Your task to perform on an android device: turn off translation in the chrome app Image 0: 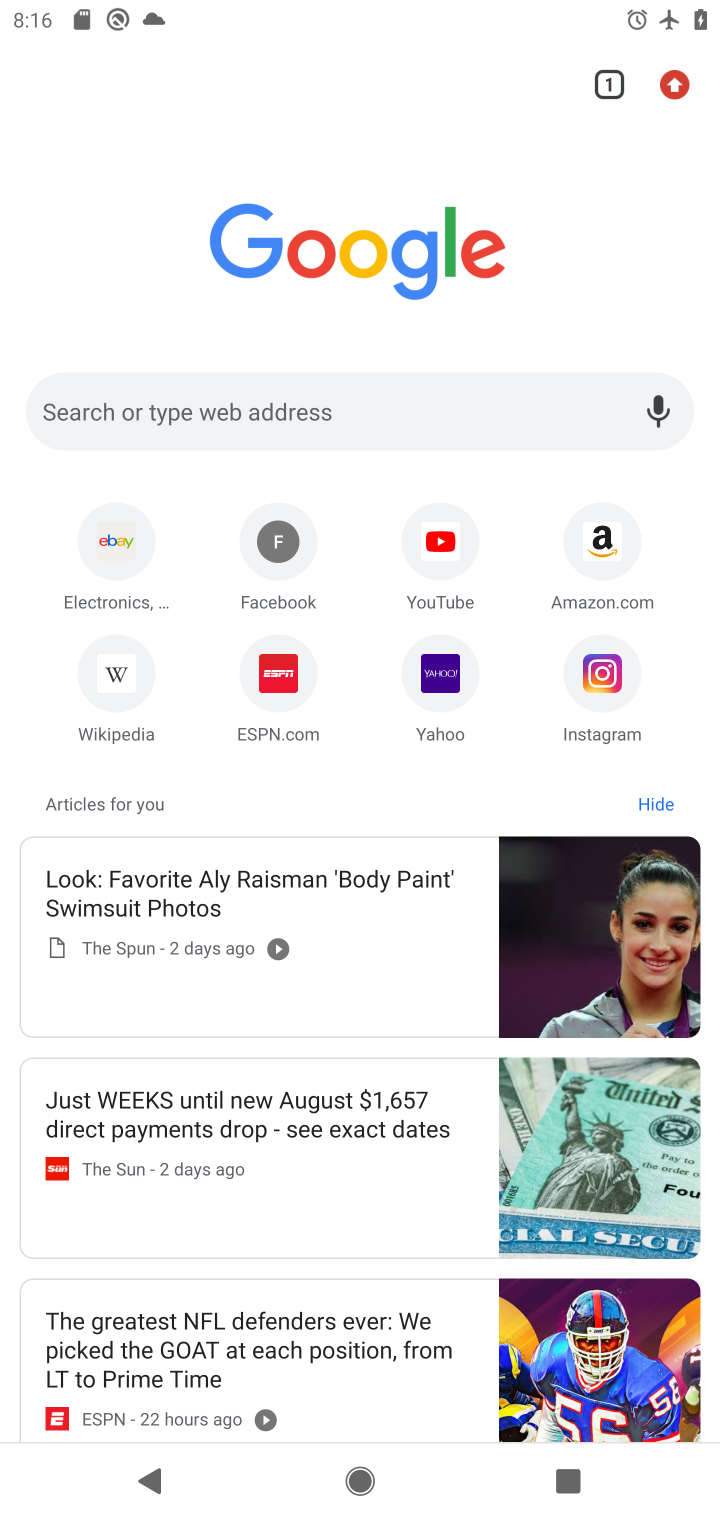
Step 0: press home button
Your task to perform on an android device: turn off translation in the chrome app Image 1: 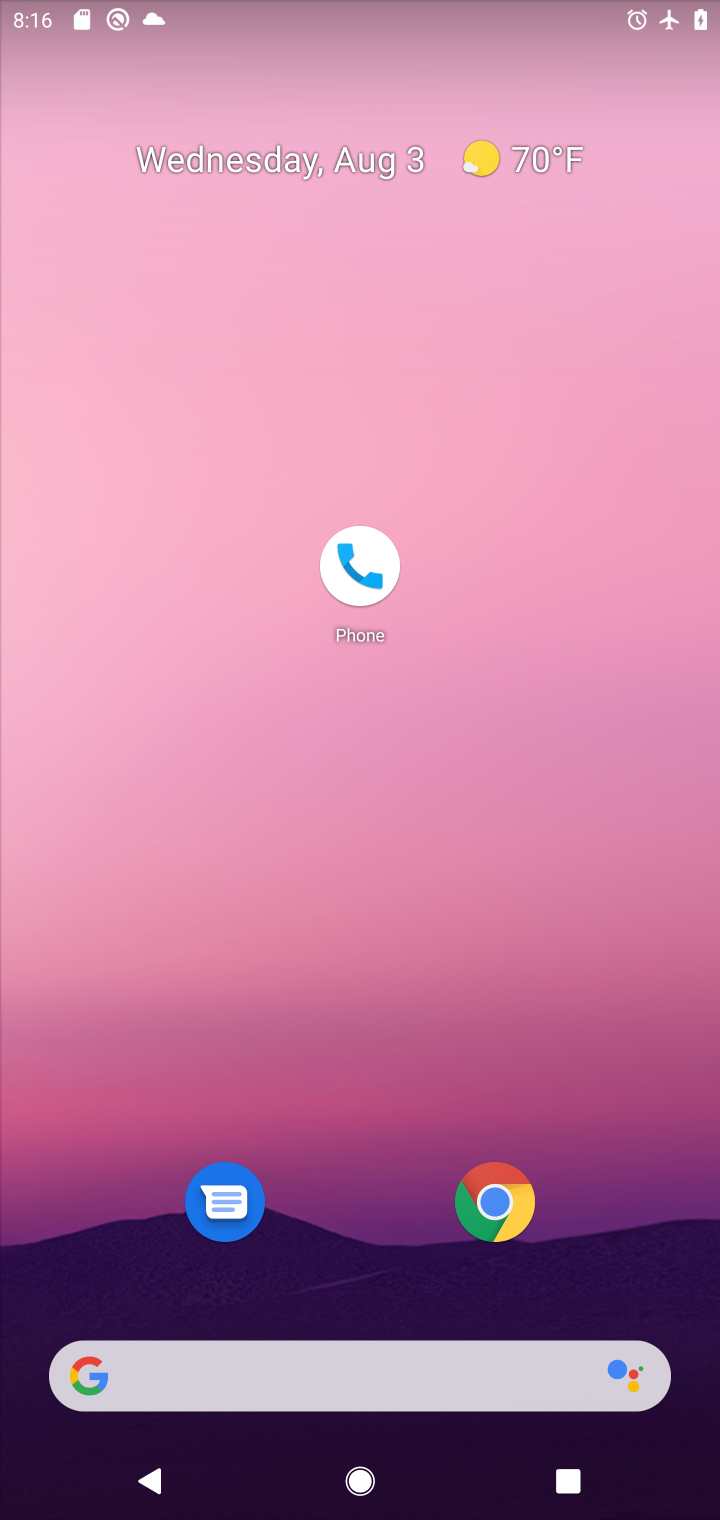
Step 1: drag from (311, 1356) to (684, 394)
Your task to perform on an android device: turn off translation in the chrome app Image 2: 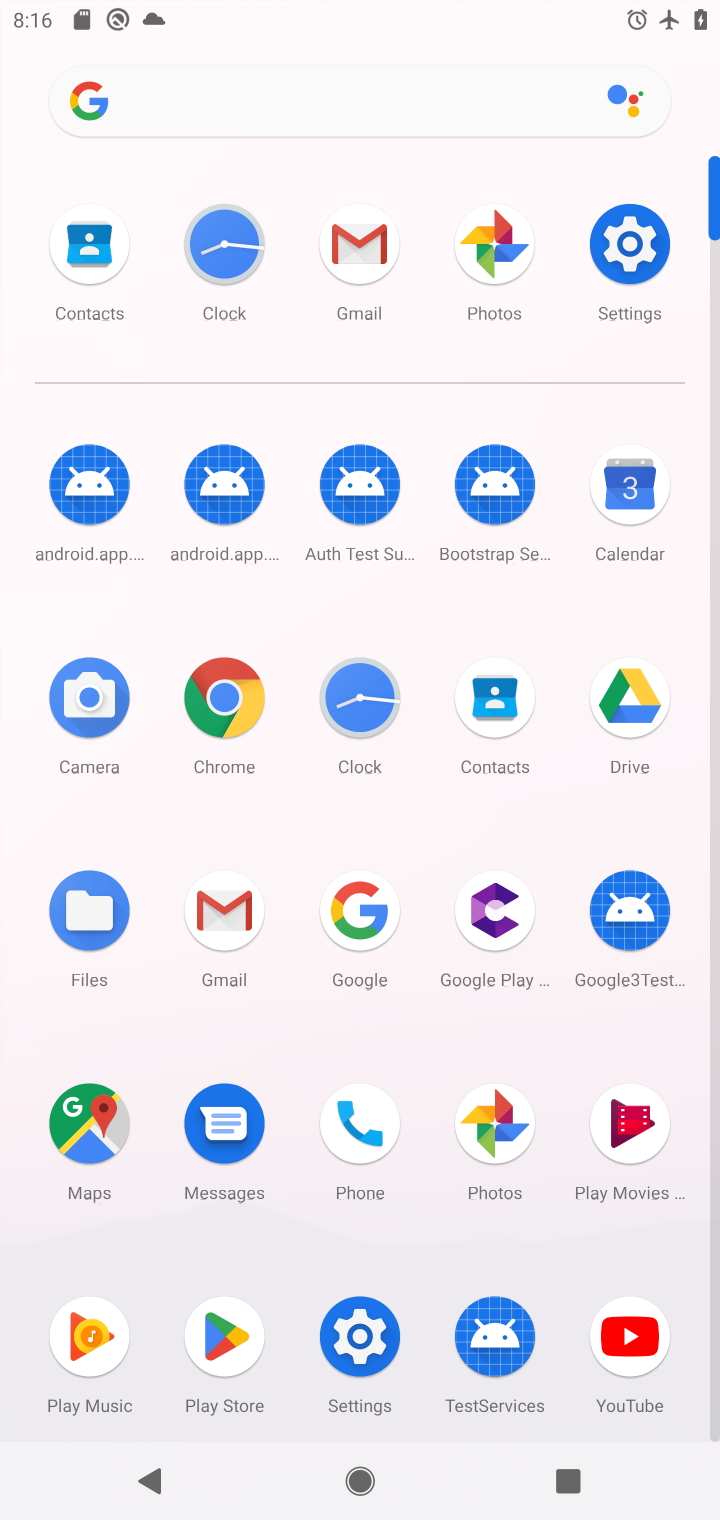
Step 2: click (230, 698)
Your task to perform on an android device: turn off translation in the chrome app Image 3: 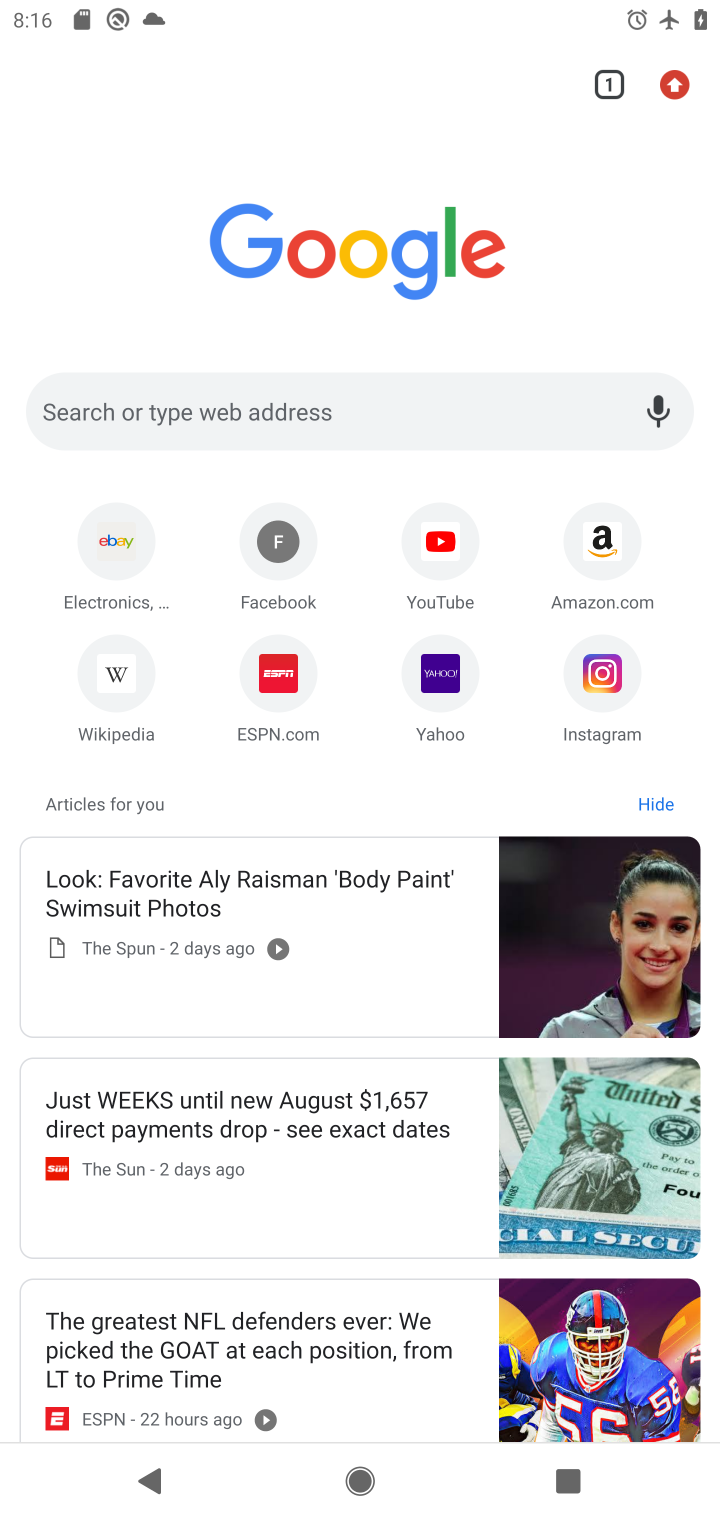
Step 3: click (670, 88)
Your task to perform on an android device: turn off translation in the chrome app Image 4: 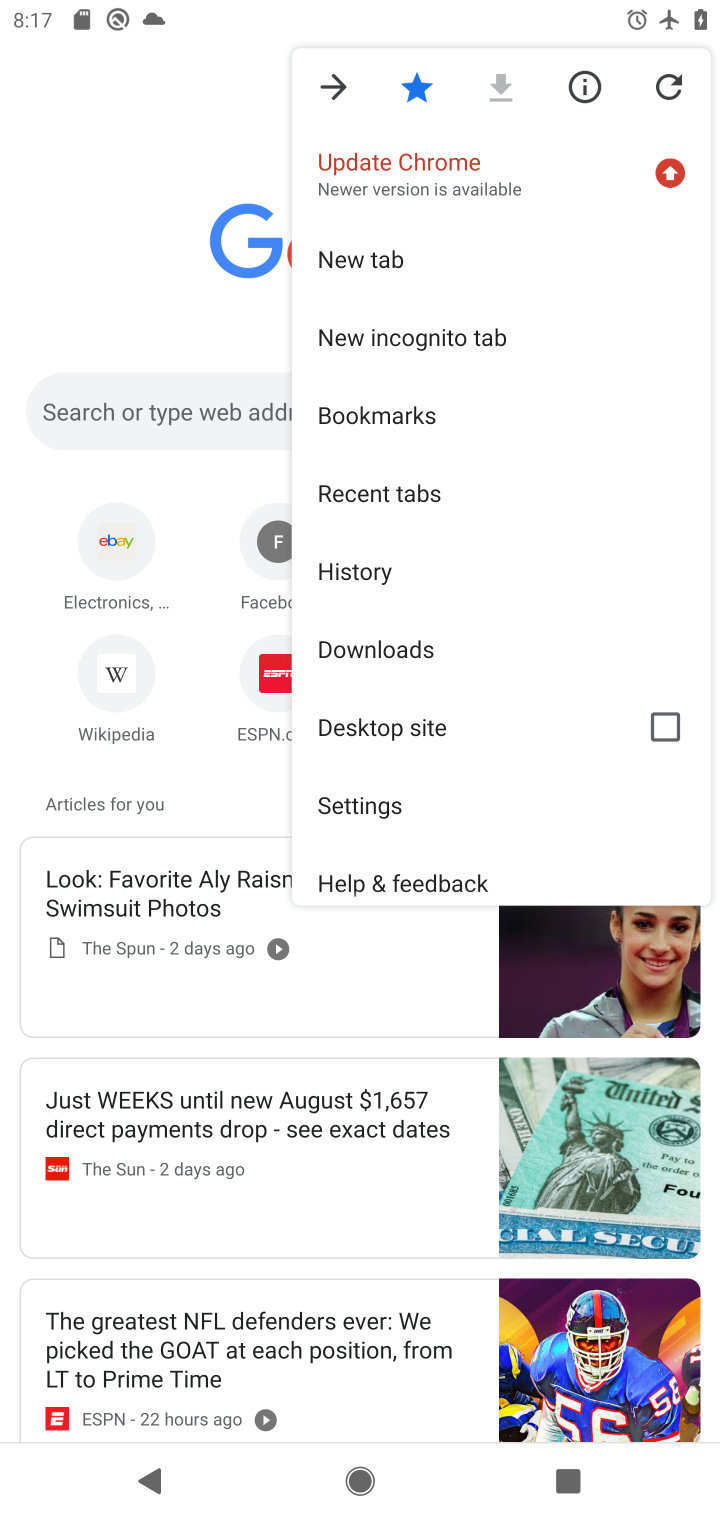
Step 4: click (384, 800)
Your task to perform on an android device: turn off translation in the chrome app Image 5: 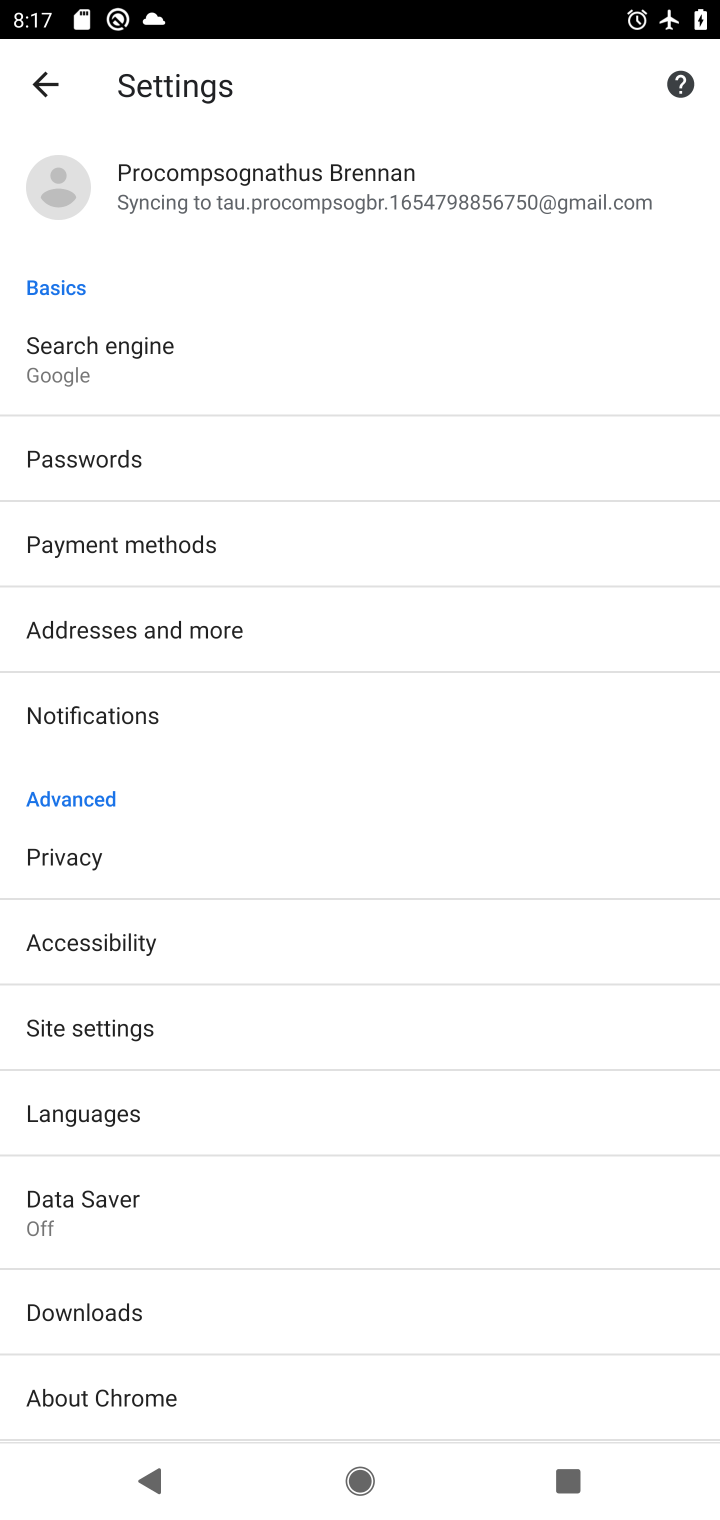
Step 5: click (86, 1108)
Your task to perform on an android device: turn off translation in the chrome app Image 6: 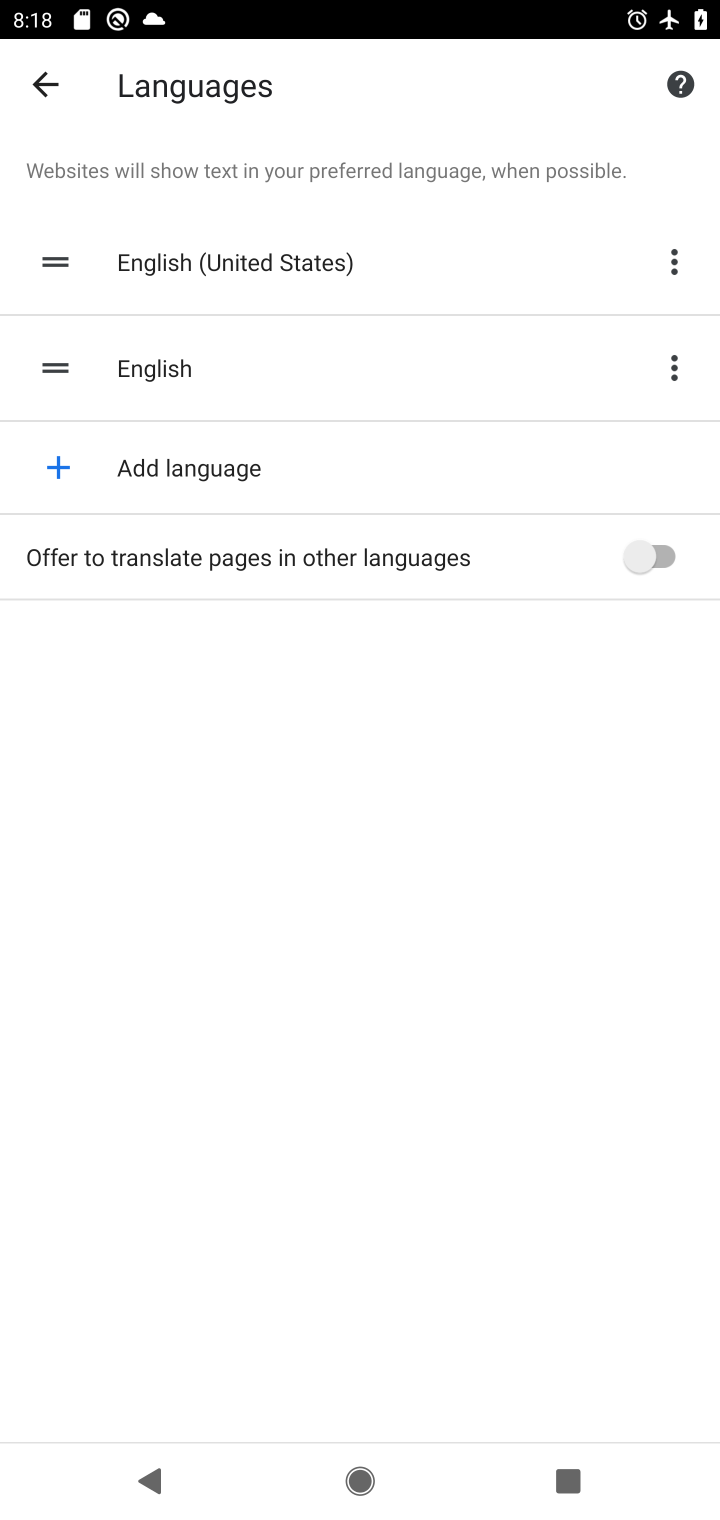
Step 6: task complete